Your task to perform on an android device: Open the stopwatch Image 0: 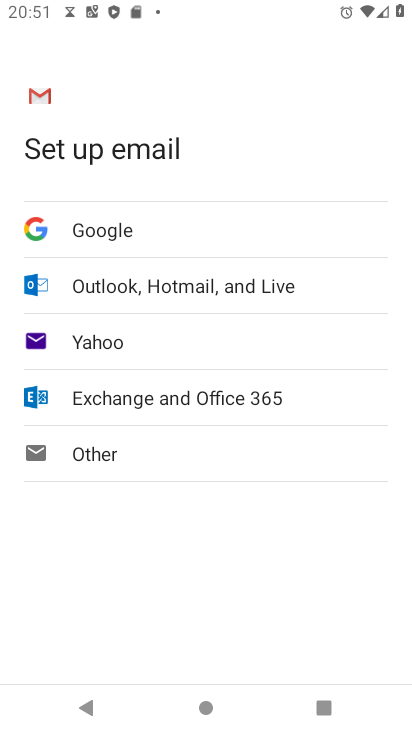
Step 0: press home button
Your task to perform on an android device: Open the stopwatch Image 1: 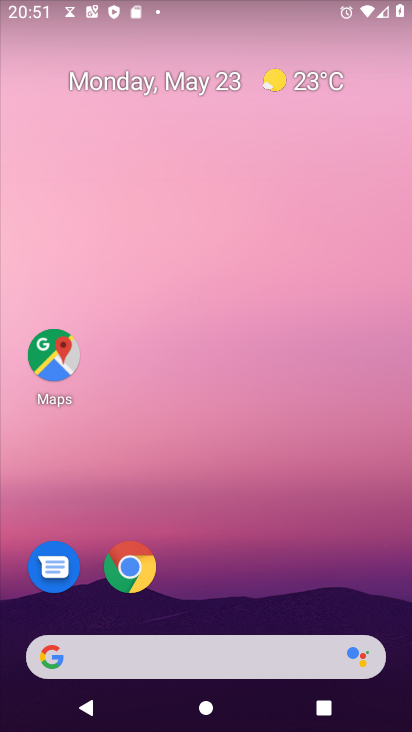
Step 1: drag from (244, 565) to (250, 287)
Your task to perform on an android device: Open the stopwatch Image 2: 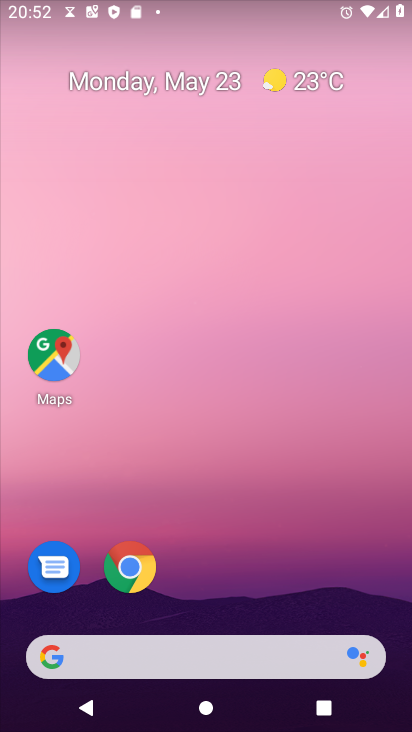
Step 2: drag from (269, 595) to (273, 259)
Your task to perform on an android device: Open the stopwatch Image 3: 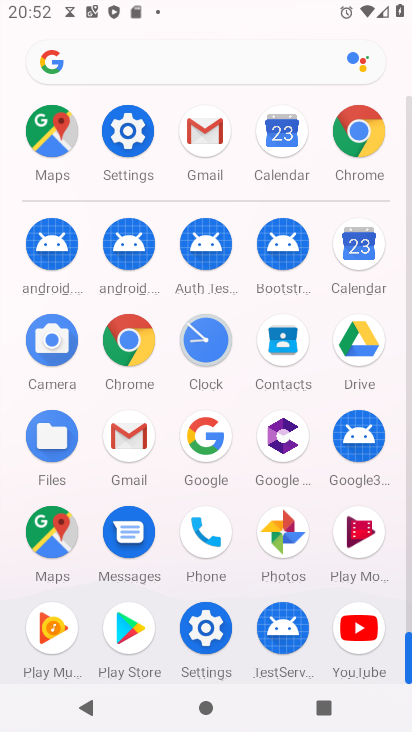
Step 3: click (206, 330)
Your task to perform on an android device: Open the stopwatch Image 4: 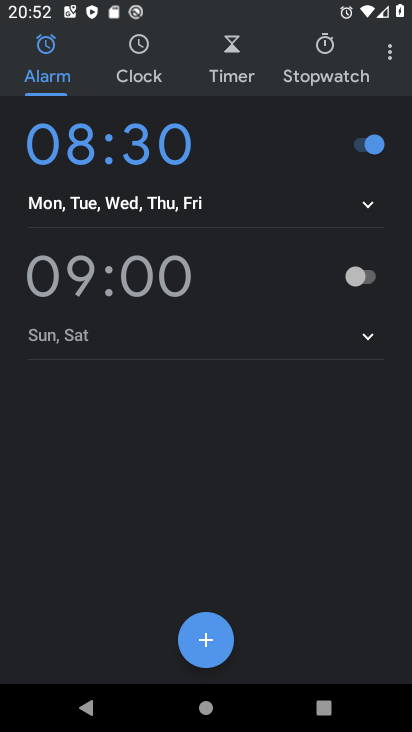
Step 4: click (306, 53)
Your task to perform on an android device: Open the stopwatch Image 5: 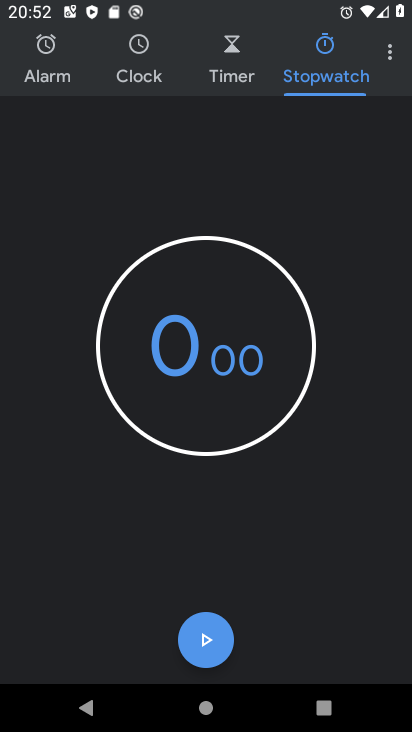
Step 5: task complete